Your task to perform on an android device: turn off data saver in the chrome app Image 0: 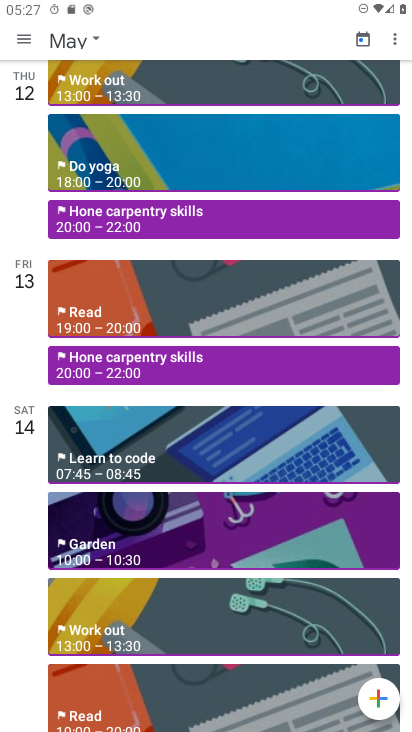
Step 0: press home button
Your task to perform on an android device: turn off data saver in the chrome app Image 1: 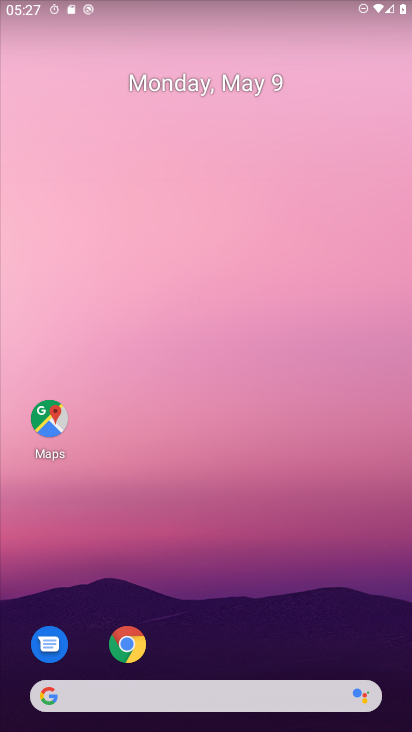
Step 1: click (126, 648)
Your task to perform on an android device: turn off data saver in the chrome app Image 2: 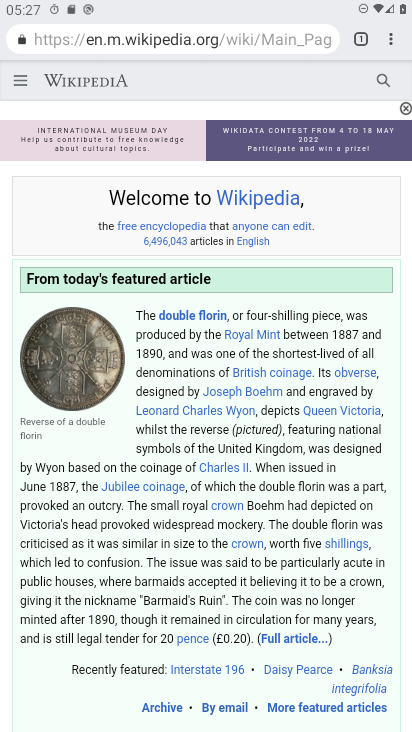
Step 2: click (391, 40)
Your task to perform on an android device: turn off data saver in the chrome app Image 3: 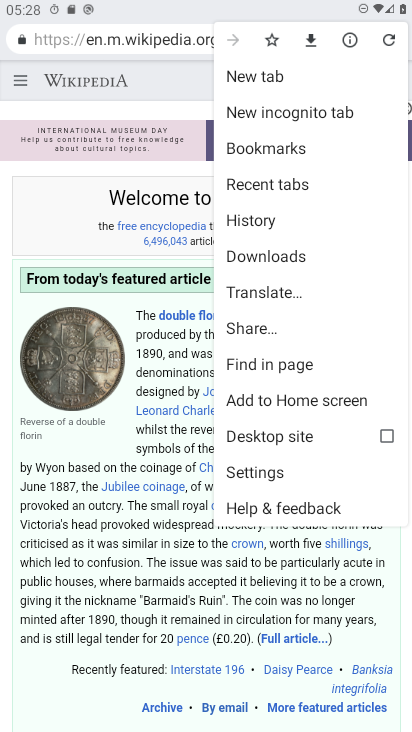
Step 3: click (271, 468)
Your task to perform on an android device: turn off data saver in the chrome app Image 4: 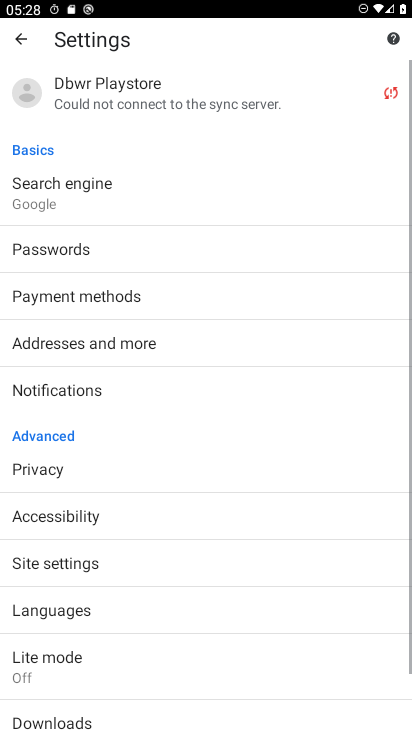
Step 4: drag from (192, 605) to (217, 391)
Your task to perform on an android device: turn off data saver in the chrome app Image 5: 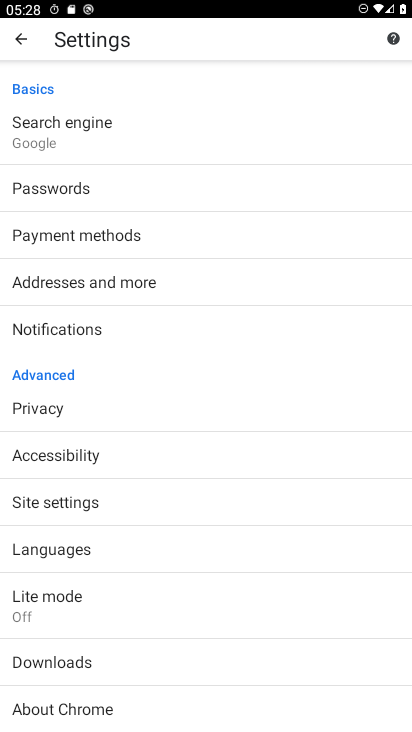
Step 5: drag from (149, 624) to (177, 449)
Your task to perform on an android device: turn off data saver in the chrome app Image 6: 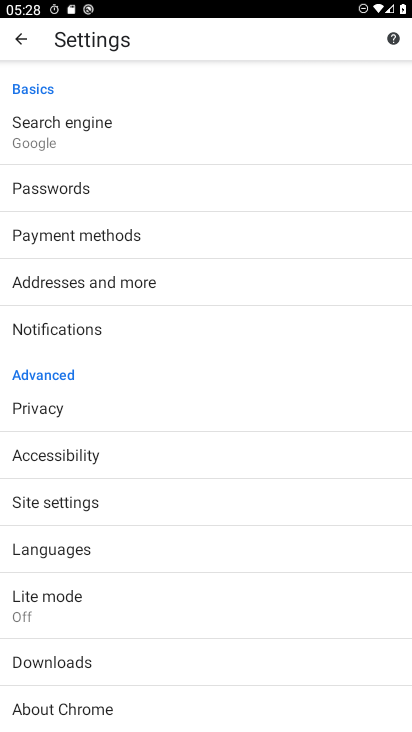
Step 6: click (66, 602)
Your task to perform on an android device: turn off data saver in the chrome app Image 7: 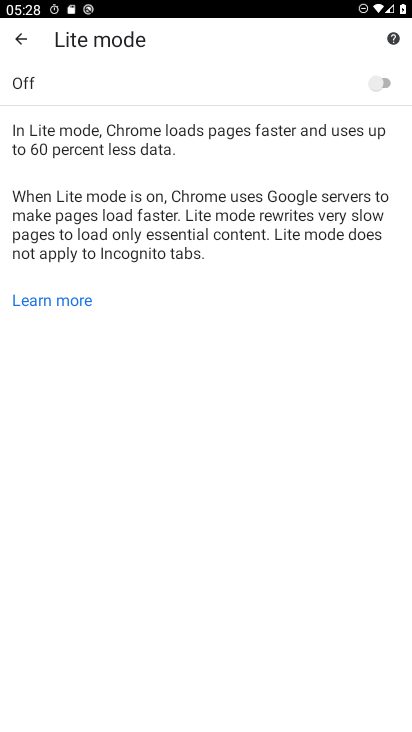
Step 7: task complete